Your task to perform on an android device: Open Google Chrome and open the bookmarks view Image 0: 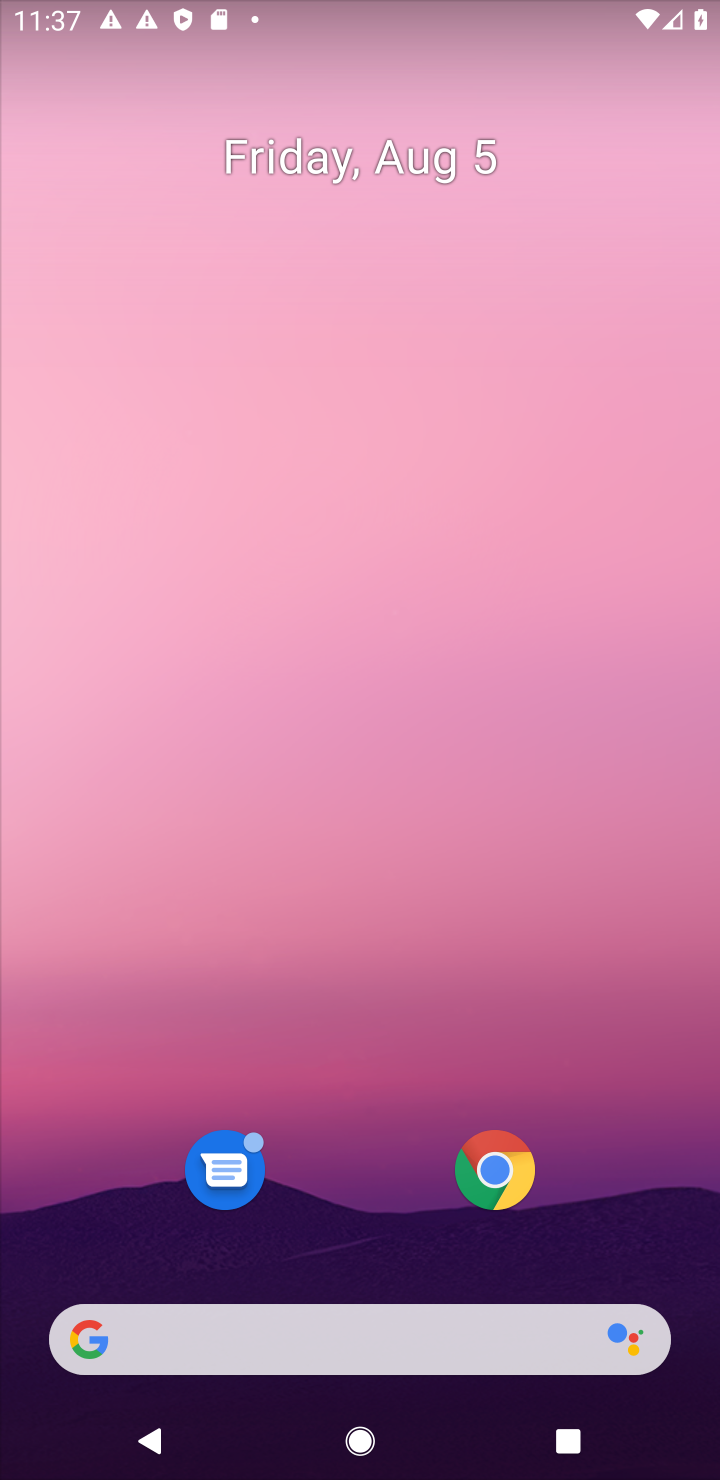
Step 0: click (506, 1181)
Your task to perform on an android device: Open Google Chrome and open the bookmarks view Image 1: 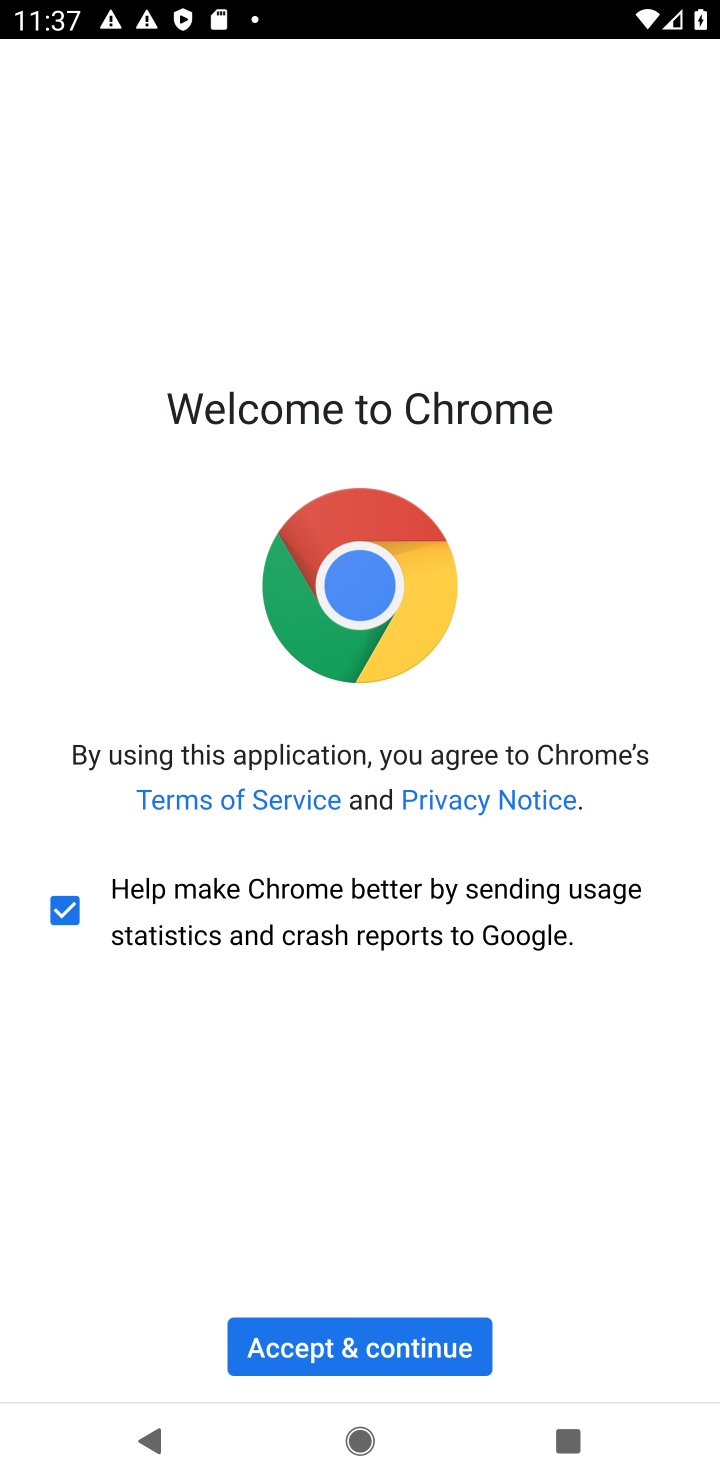
Step 1: click (406, 1339)
Your task to perform on an android device: Open Google Chrome and open the bookmarks view Image 2: 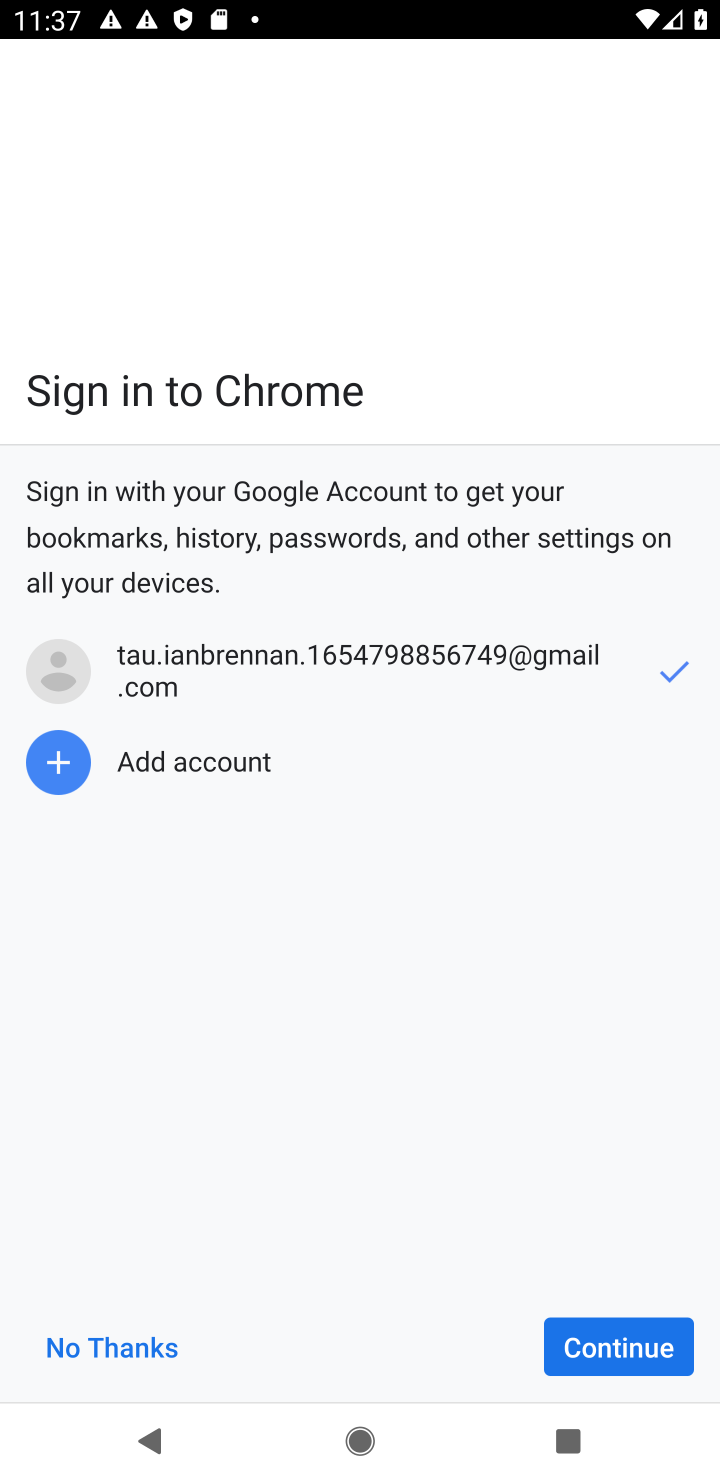
Step 2: click (599, 1332)
Your task to perform on an android device: Open Google Chrome and open the bookmarks view Image 3: 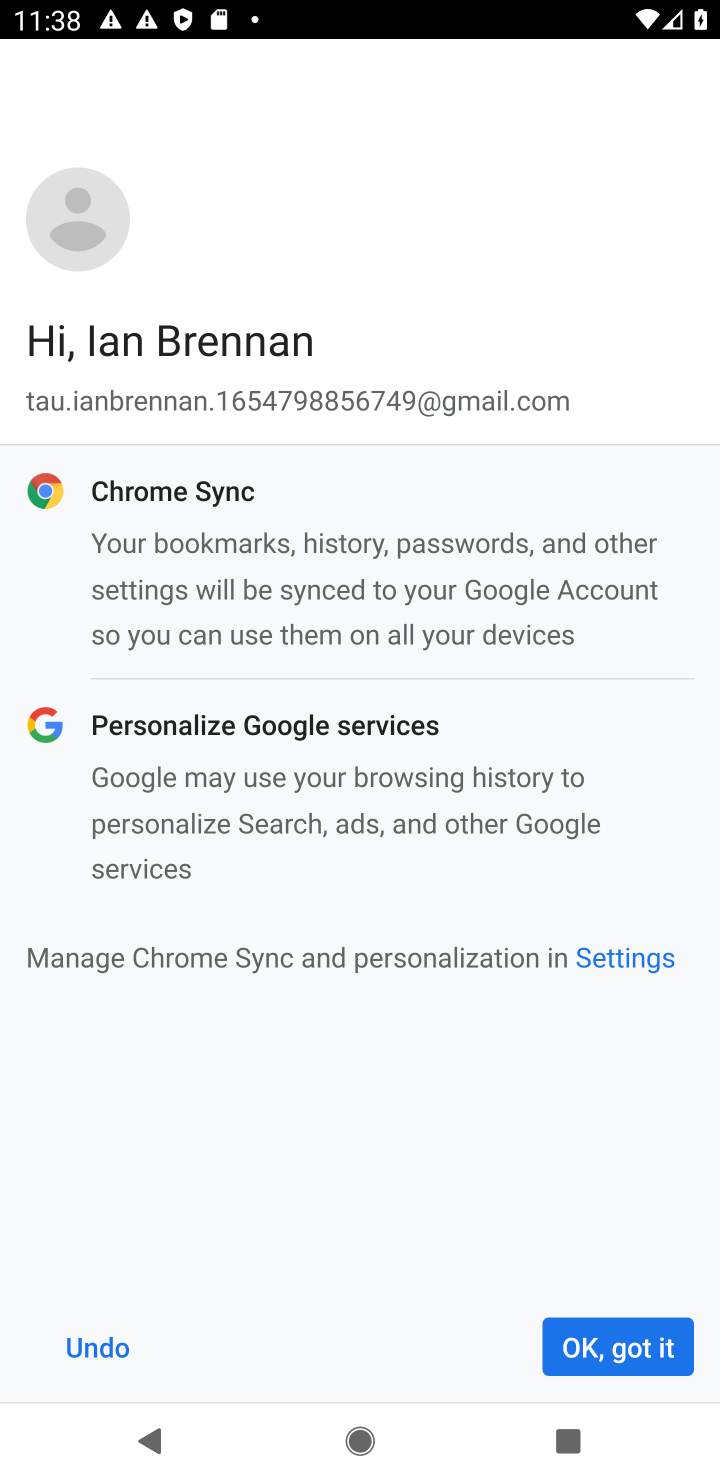
Step 3: click (599, 1332)
Your task to perform on an android device: Open Google Chrome and open the bookmarks view Image 4: 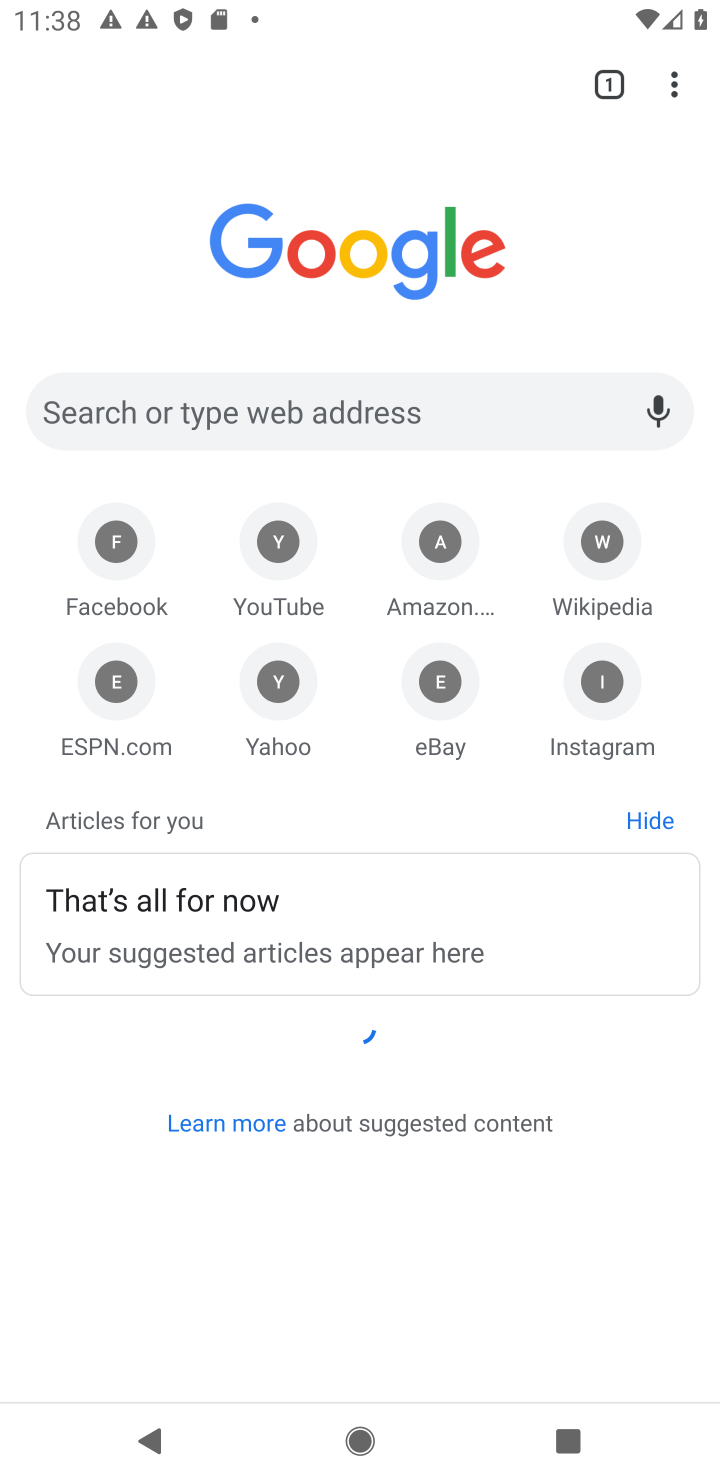
Step 4: click (677, 85)
Your task to perform on an android device: Open Google Chrome and open the bookmarks view Image 5: 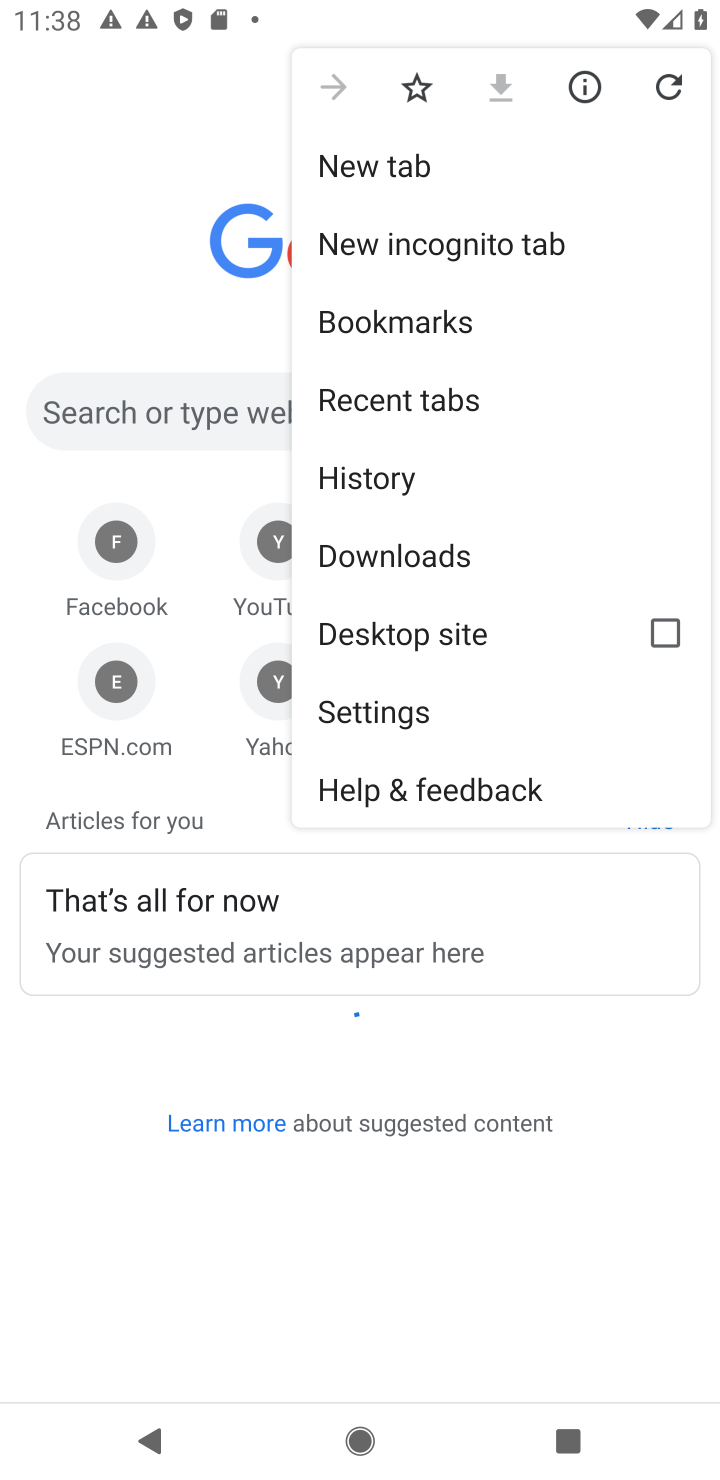
Step 5: click (431, 317)
Your task to perform on an android device: Open Google Chrome and open the bookmarks view Image 6: 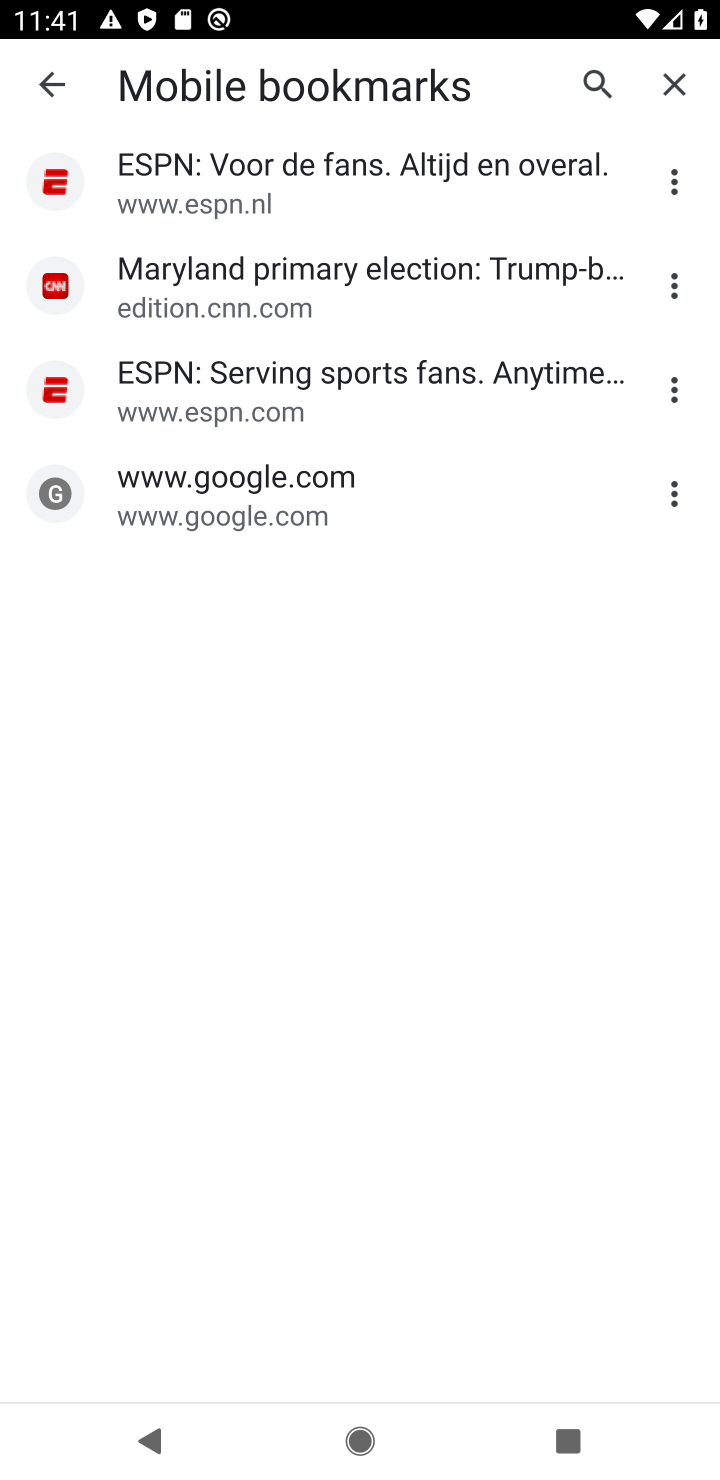
Step 6: task complete